Your task to perform on an android device: Open calendar and show me the second week of next month Image 0: 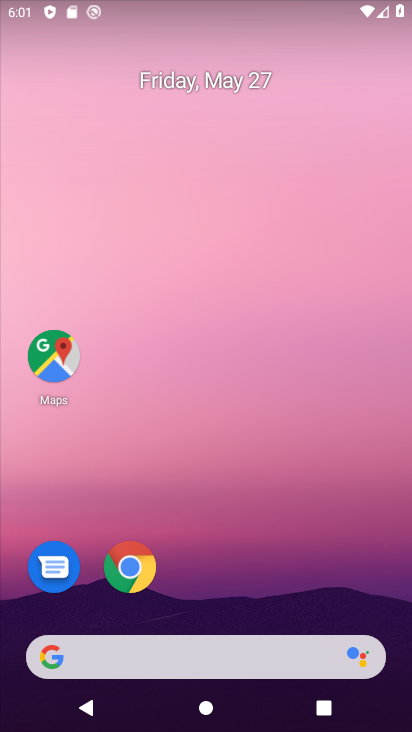
Step 0: drag from (211, 591) to (235, 152)
Your task to perform on an android device: Open calendar and show me the second week of next month Image 1: 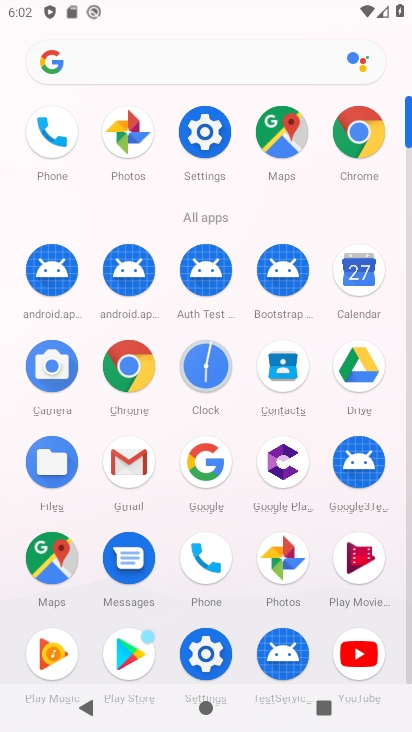
Step 1: click (365, 277)
Your task to perform on an android device: Open calendar and show me the second week of next month Image 2: 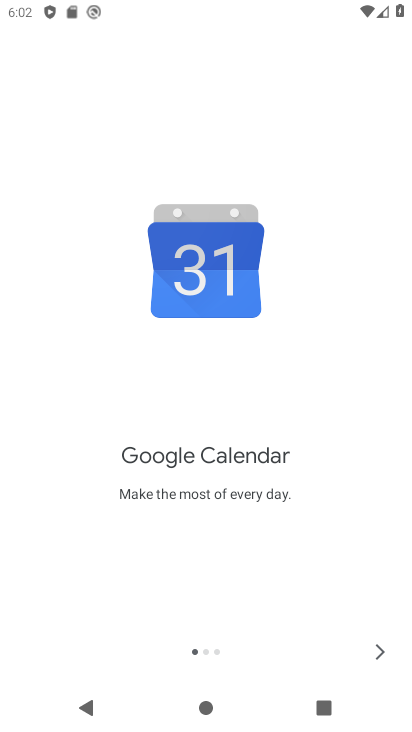
Step 2: click (376, 643)
Your task to perform on an android device: Open calendar and show me the second week of next month Image 3: 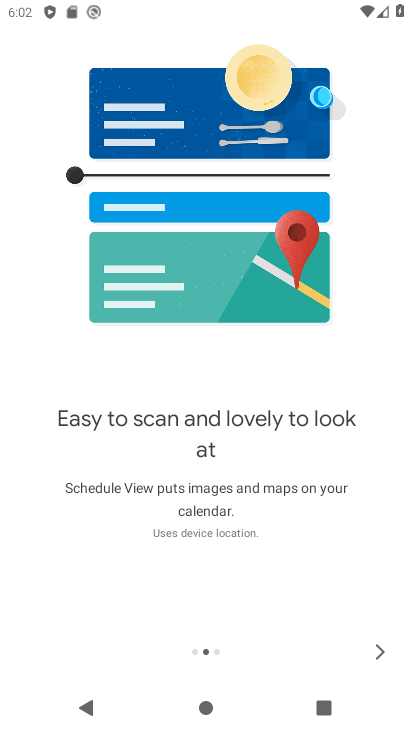
Step 3: click (376, 643)
Your task to perform on an android device: Open calendar and show me the second week of next month Image 4: 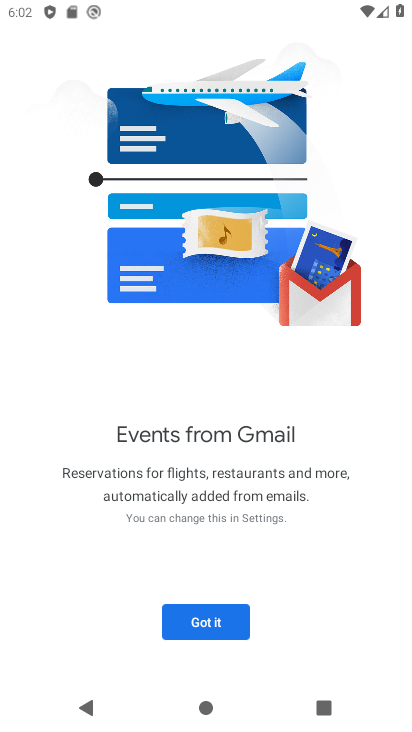
Step 4: click (219, 627)
Your task to perform on an android device: Open calendar and show me the second week of next month Image 5: 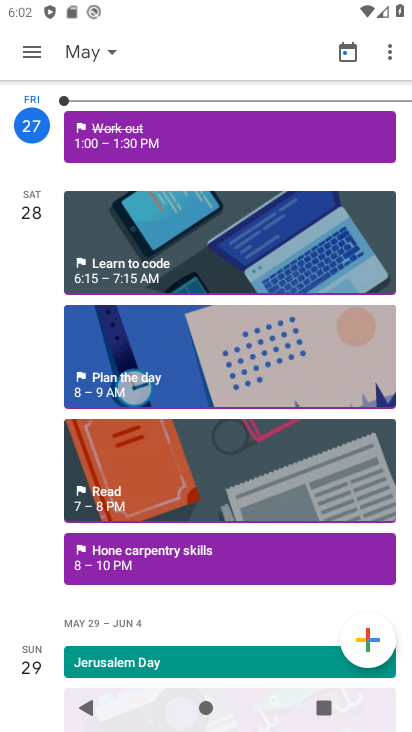
Step 5: click (41, 56)
Your task to perform on an android device: Open calendar and show me the second week of next month Image 6: 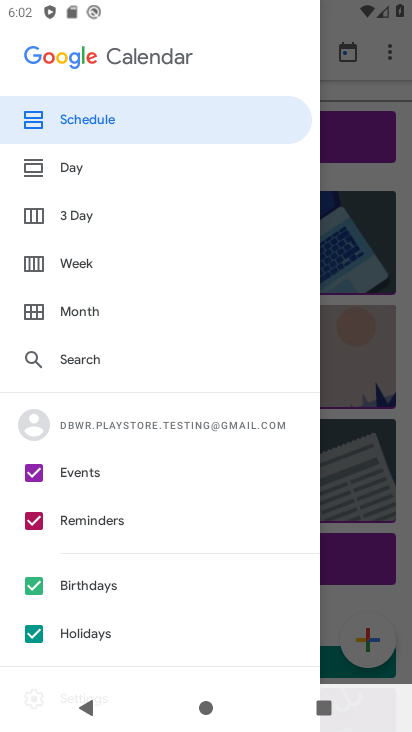
Step 6: click (67, 261)
Your task to perform on an android device: Open calendar and show me the second week of next month Image 7: 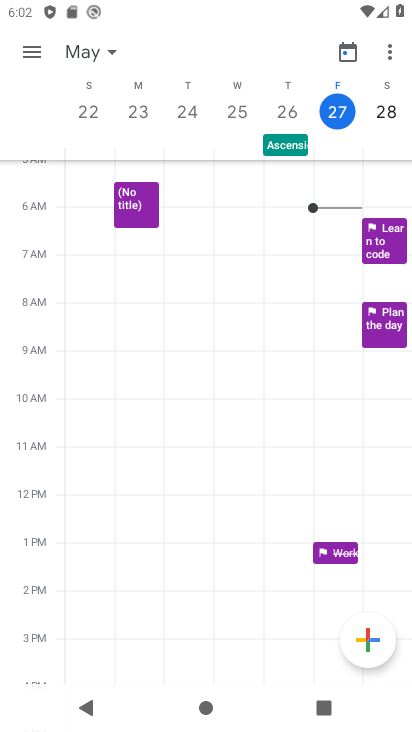
Step 7: click (101, 51)
Your task to perform on an android device: Open calendar and show me the second week of next month Image 8: 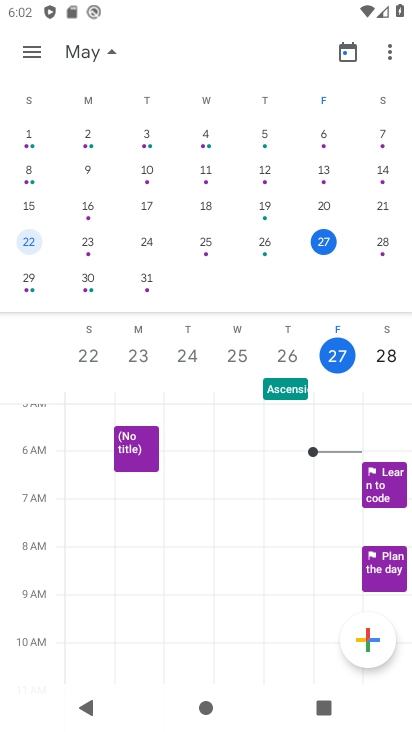
Step 8: drag from (376, 175) to (22, 177)
Your task to perform on an android device: Open calendar and show me the second week of next month Image 9: 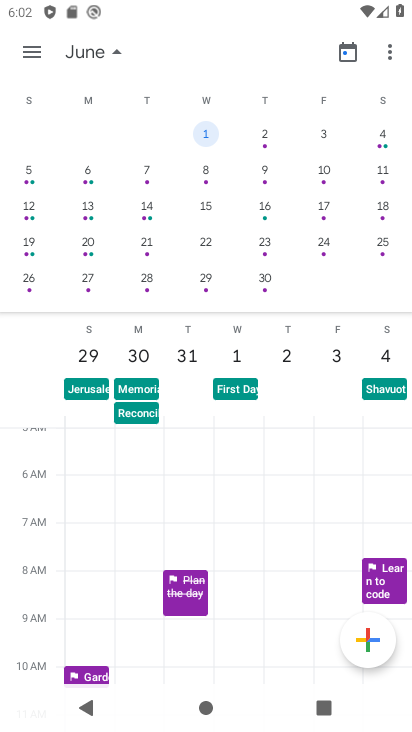
Step 9: click (36, 208)
Your task to perform on an android device: Open calendar and show me the second week of next month Image 10: 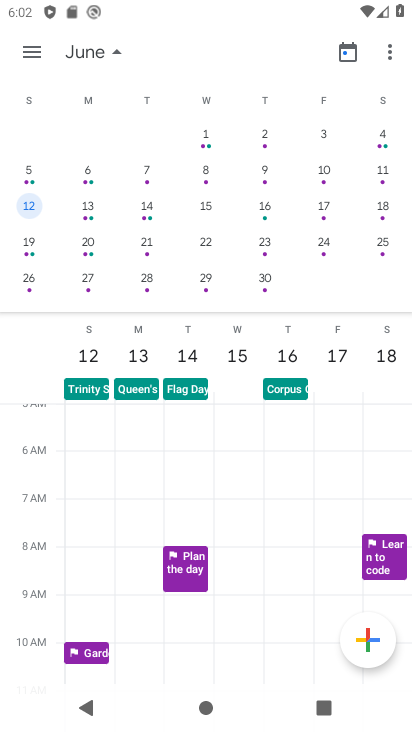
Step 10: drag from (227, 561) to (218, 234)
Your task to perform on an android device: Open calendar and show me the second week of next month Image 11: 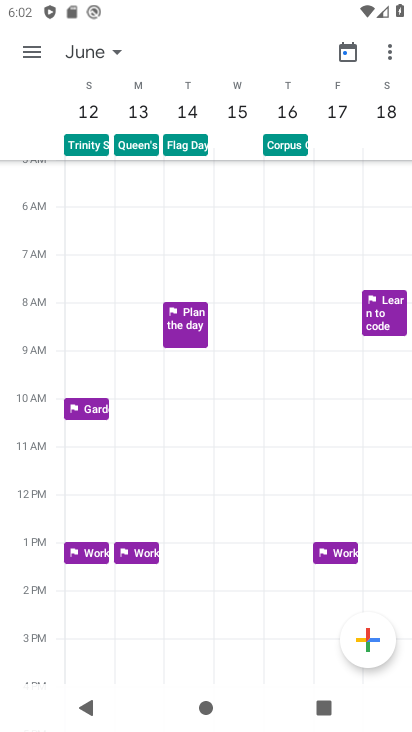
Step 11: drag from (225, 552) to (250, 87)
Your task to perform on an android device: Open calendar and show me the second week of next month Image 12: 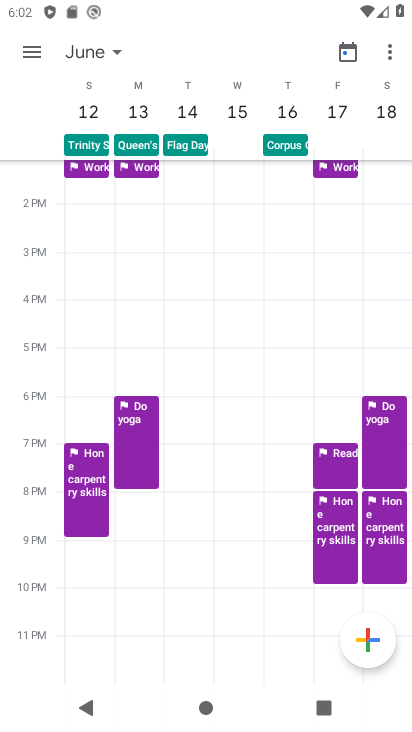
Step 12: click (238, 225)
Your task to perform on an android device: Open calendar and show me the second week of next month Image 13: 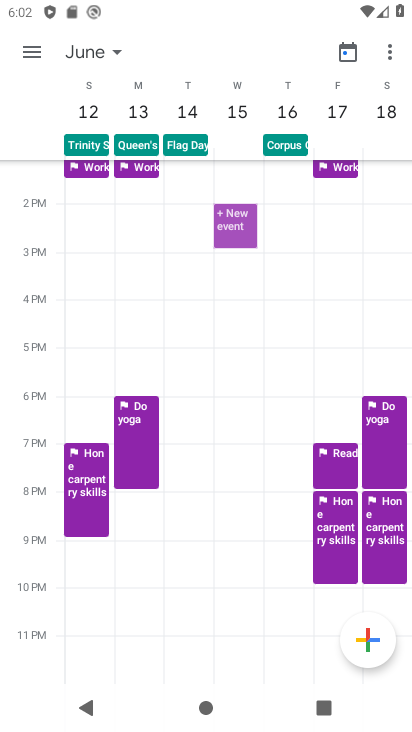
Step 13: task complete